Your task to perform on an android device: Open Android settings Image 0: 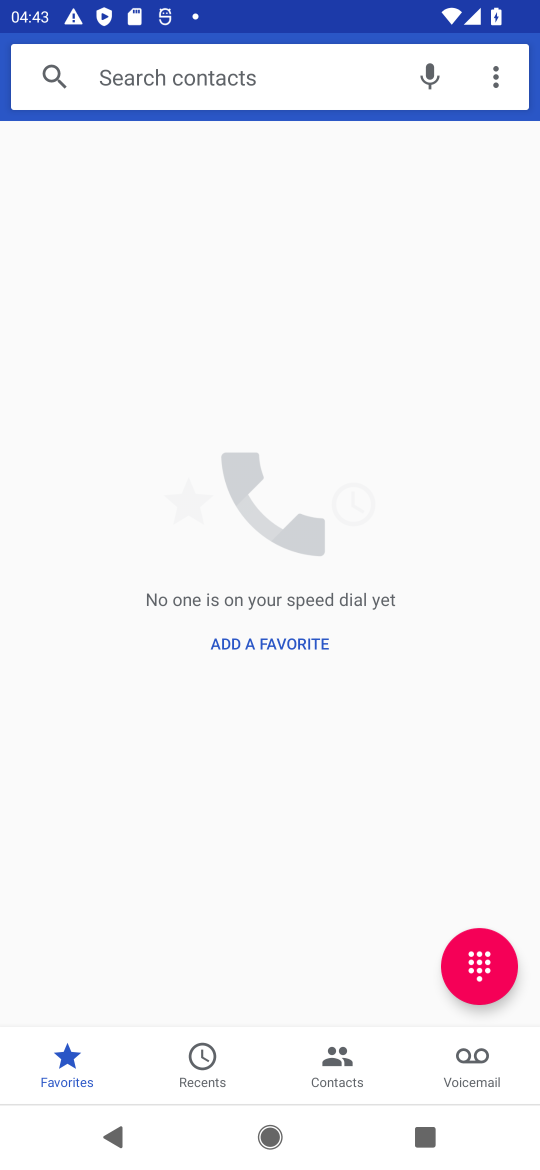
Step 0: press home button
Your task to perform on an android device: Open Android settings Image 1: 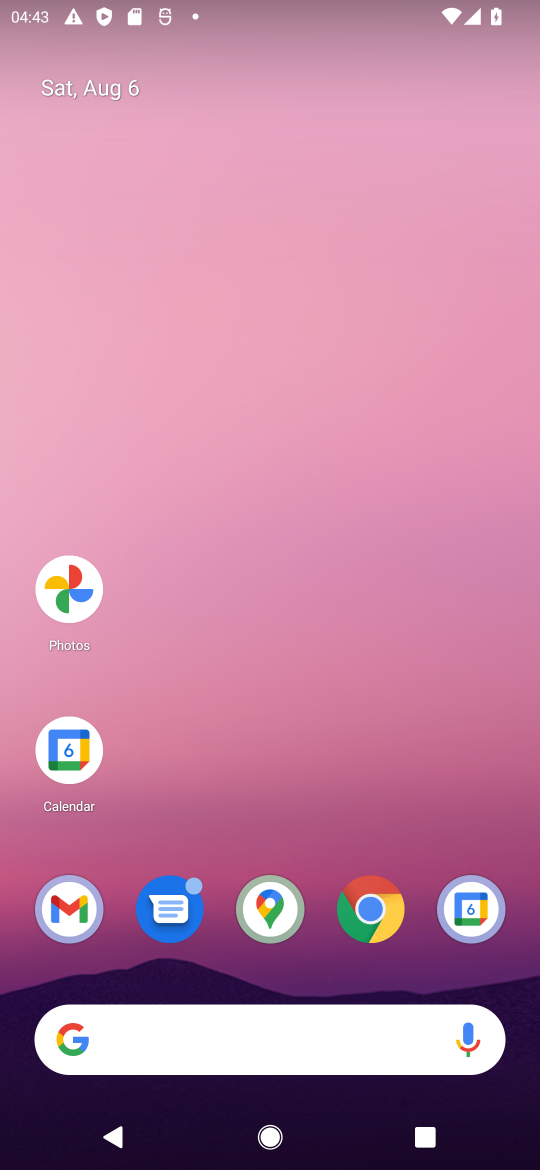
Step 1: drag from (326, 830) to (301, 133)
Your task to perform on an android device: Open Android settings Image 2: 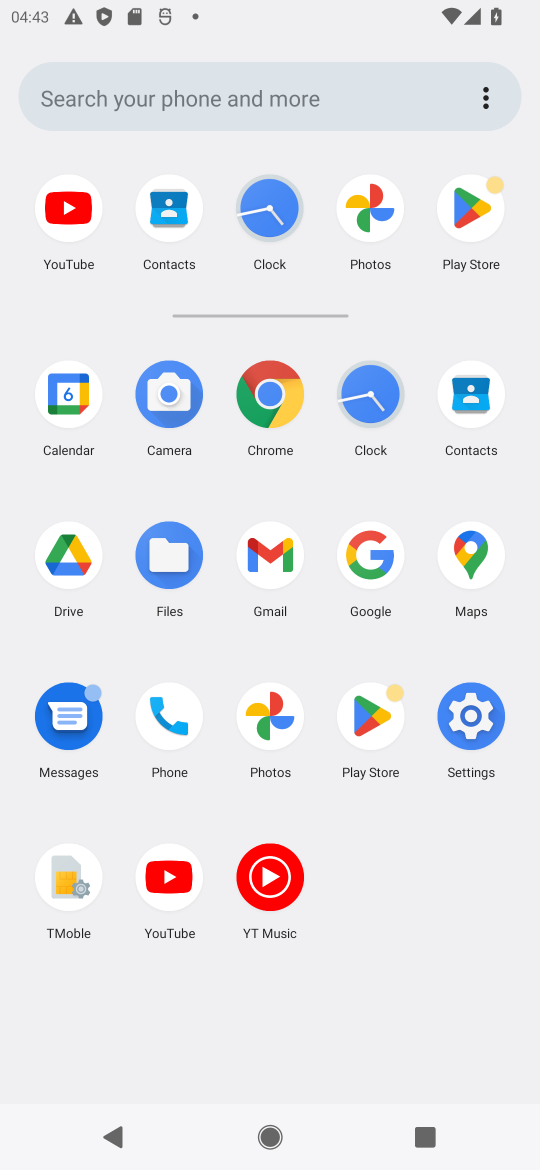
Step 2: click (473, 711)
Your task to perform on an android device: Open Android settings Image 3: 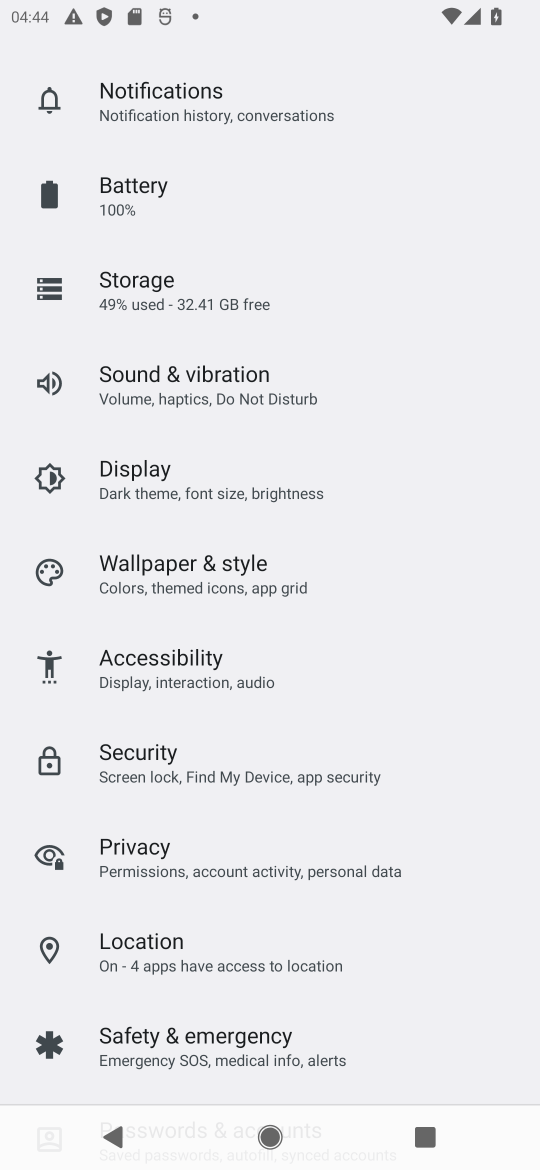
Step 3: task complete